Your task to perform on an android device: empty trash in google photos Image 0: 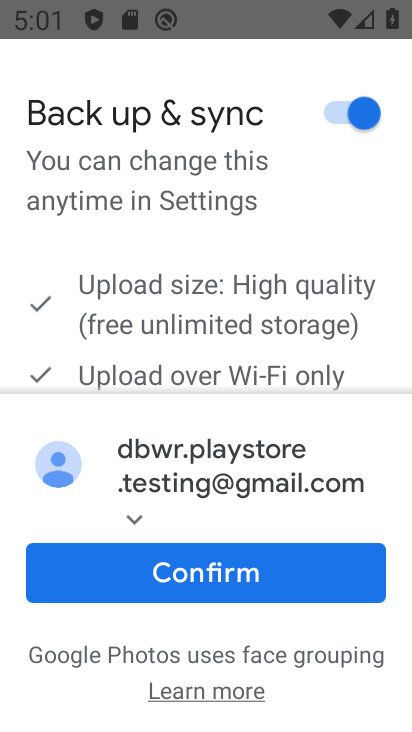
Step 0: press home button
Your task to perform on an android device: empty trash in google photos Image 1: 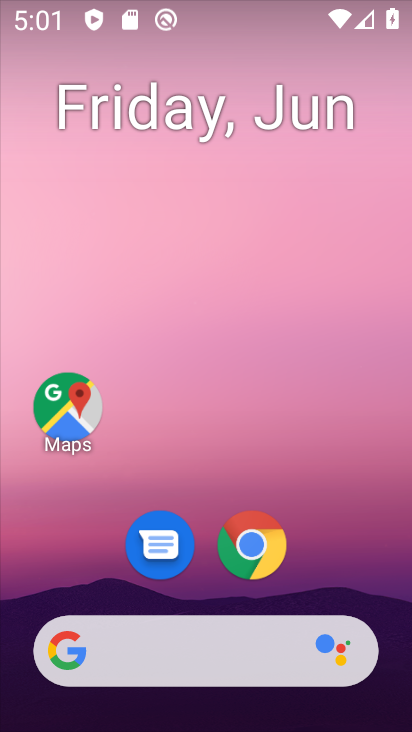
Step 1: drag from (214, 610) to (208, 245)
Your task to perform on an android device: empty trash in google photos Image 2: 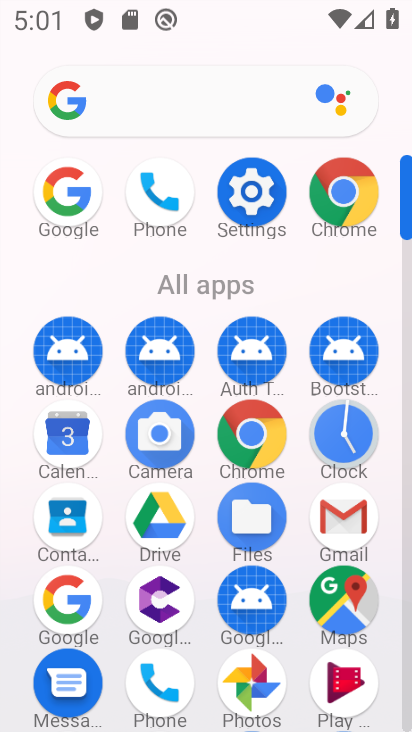
Step 2: click (241, 687)
Your task to perform on an android device: empty trash in google photos Image 3: 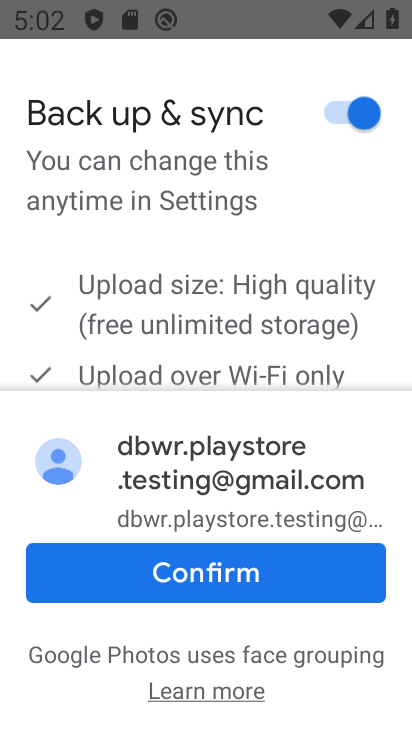
Step 3: click (231, 558)
Your task to perform on an android device: empty trash in google photos Image 4: 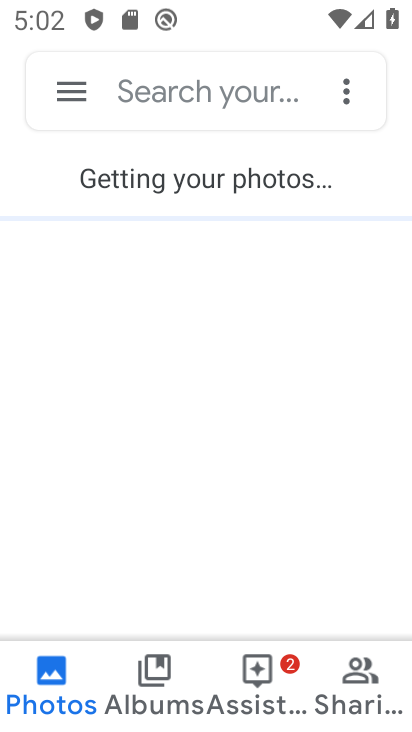
Step 4: click (78, 92)
Your task to perform on an android device: empty trash in google photos Image 5: 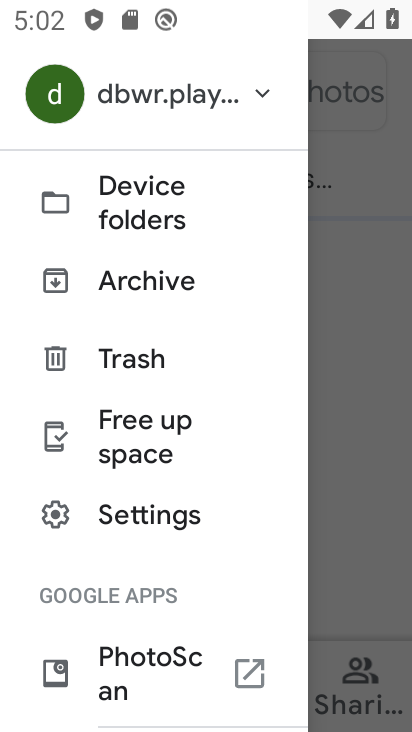
Step 5: click (122, 363)
Your task to perform on an android device: empty trash in google photos Image 6: 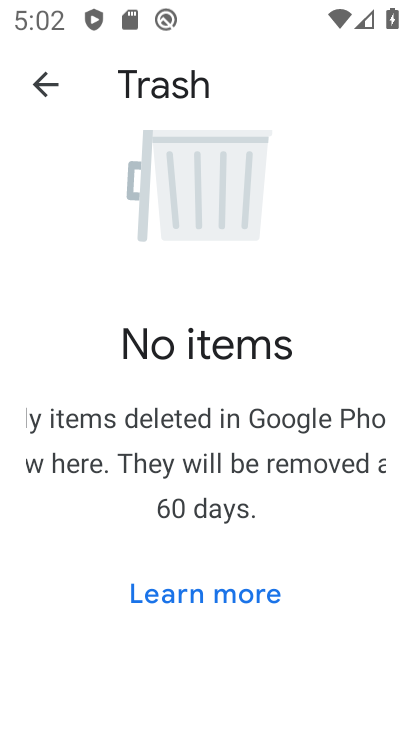
Step 6: task complete